Your task to perform on an android device: open chrome and create a bookmark for the current page Image 0: 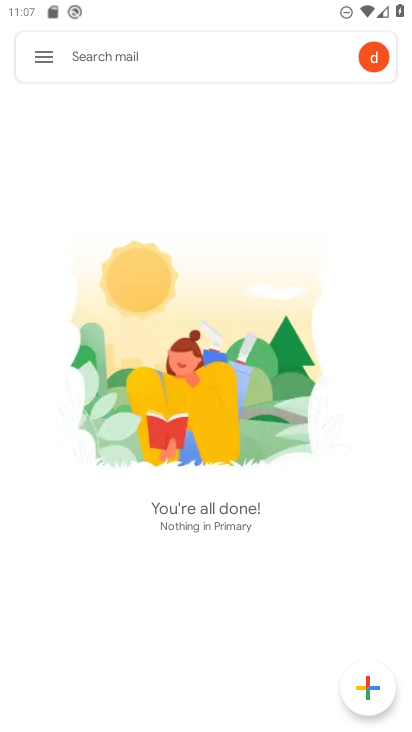
Step 0: press home button
Your task to perform on an android device: open chrome and create a bookmark for the current page Image 1: 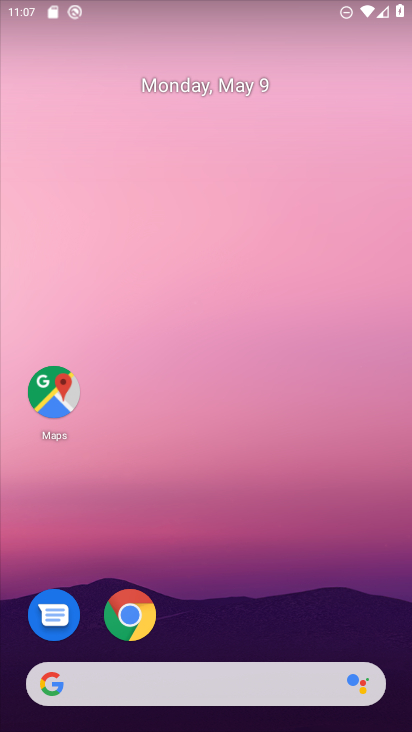
Step 1: click (132, 616)
Your task to perform on an android device: open chrome and create a bookmark for the current page Image 2: 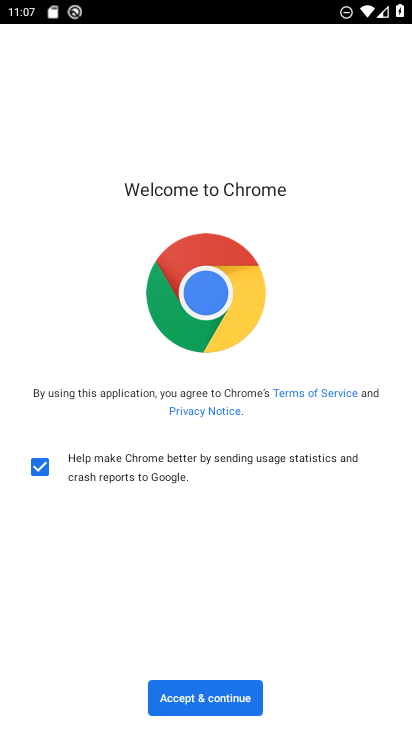
Step 2: click (206, 691)
Your task to perform on an android device: open chrome and create a bookmark for the current page Image 3: 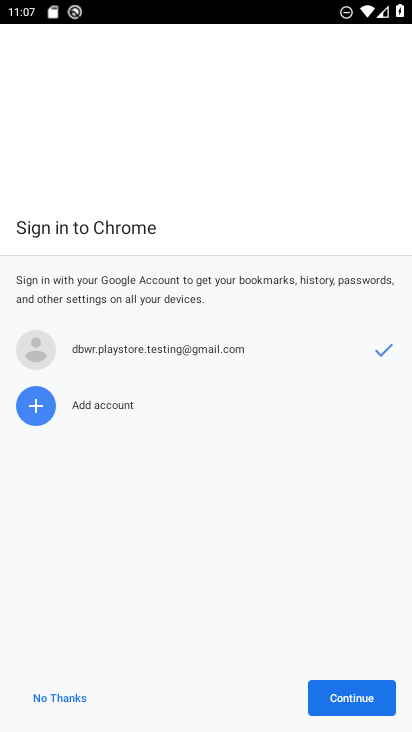
Step 3: click (351, 691)
Your task to perform on an android device: open chrome and create a bookmark for the current page Image 4: 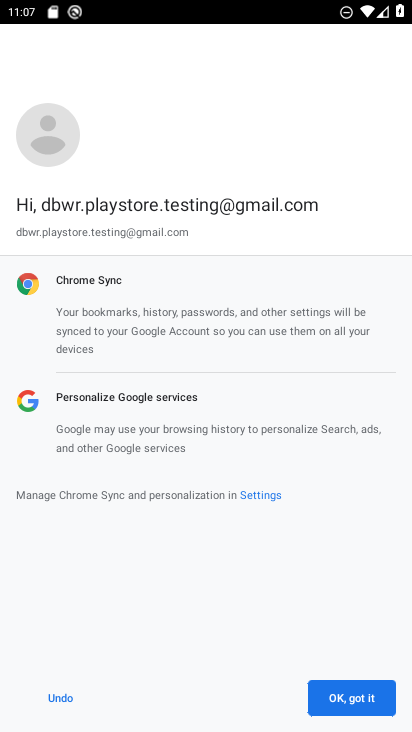
Step 4: click (351, 691)
Your task to perform on an android device: open chrome and create a bookmark for the current page Image 5: 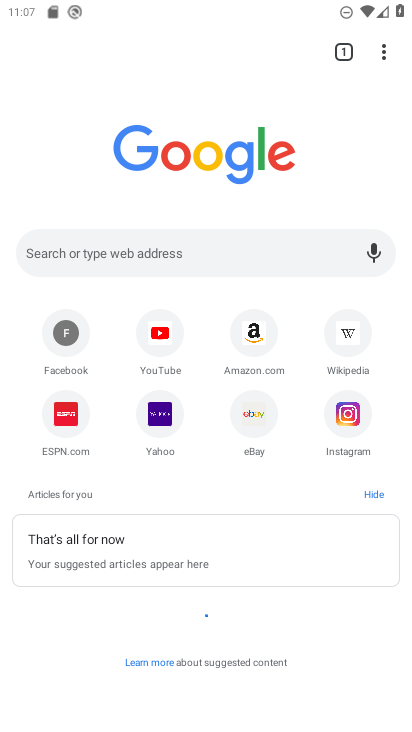
Step 5: click (384, 55)
Your task to perform on an android device: open chrome and create a bookmark for the current page Image 6: 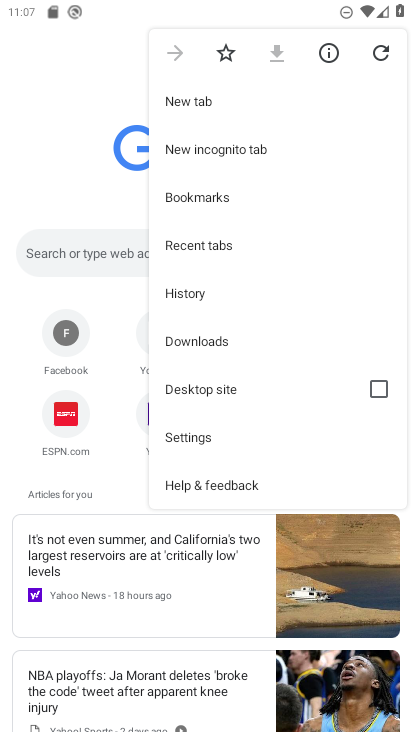
Step 6: click (224, 47)
Your task to perform on an android device: open chrome and create a bookmark for the current page Image 7: 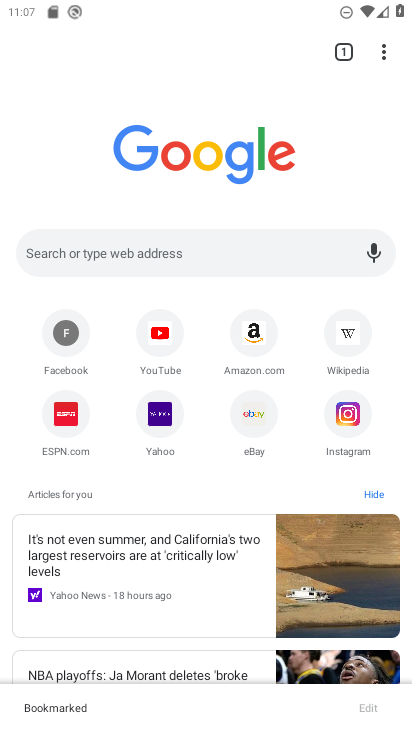
Step 7: task complete